Your task to perform on an android device: change the clock display to show seconds Image 0: 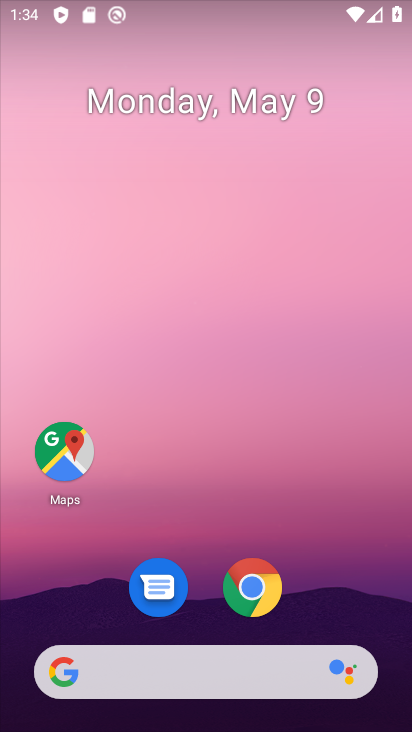
Step 0: drag from (201, 554) to (262, 19)
Your task to perform on an android device: change the clock display to show seconds Image 1: 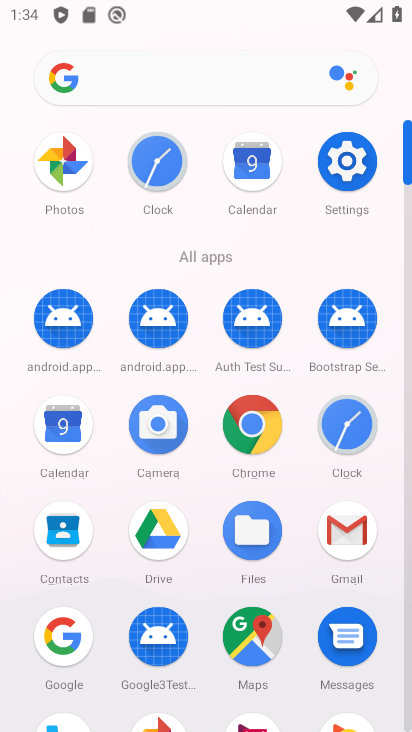
Step 1: click (347, 426)
Your task to perform on an android device: change the clock display to show seconds Image 2: 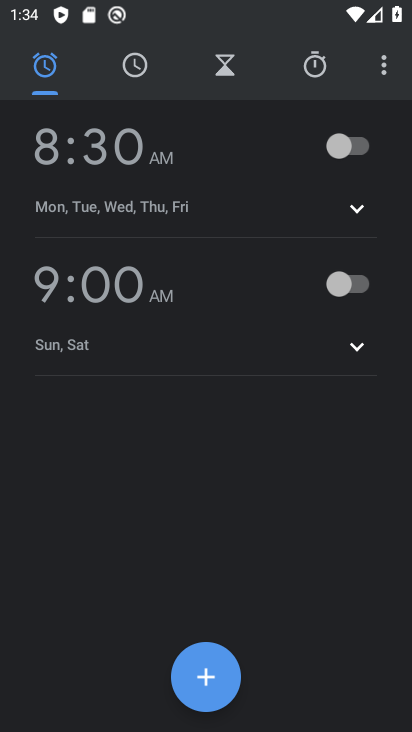
Step 2: drag from (344, 425) to (382, 75)
Your task to perform on an android device: change the clock display to show seconds Image 3: 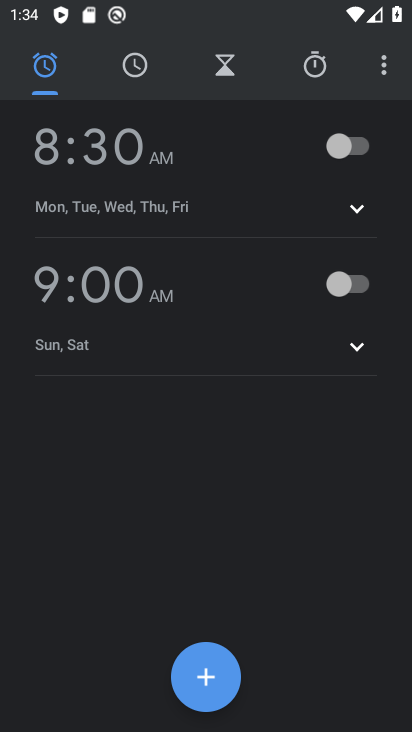
Step 3: click (382, 75)
Your task to perform on an android device: change the clock display to show seconds Image 4: 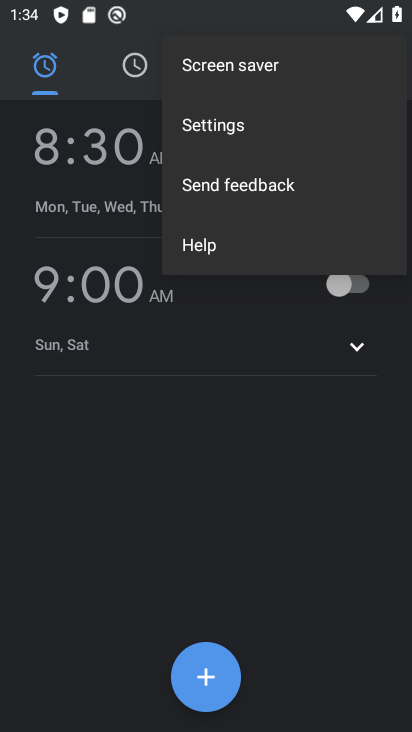
Step 4: click (193, 120)
Your task to perform on an android device: change the clock display to show seconds Image 5: 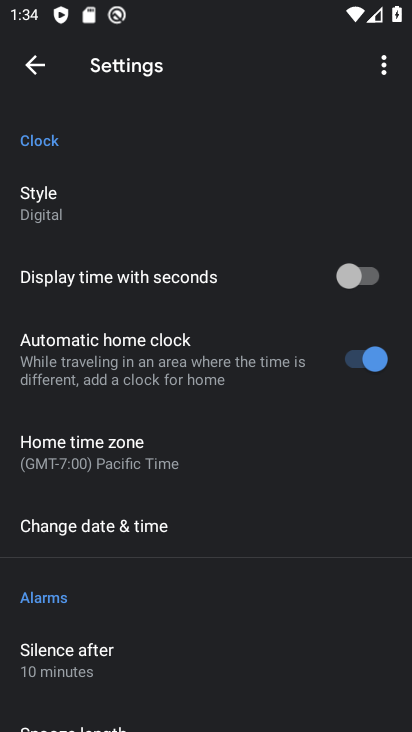
Step 5: click (361, 270)
Your task to perform on an android device: change the clock display to show seconds Image 6: 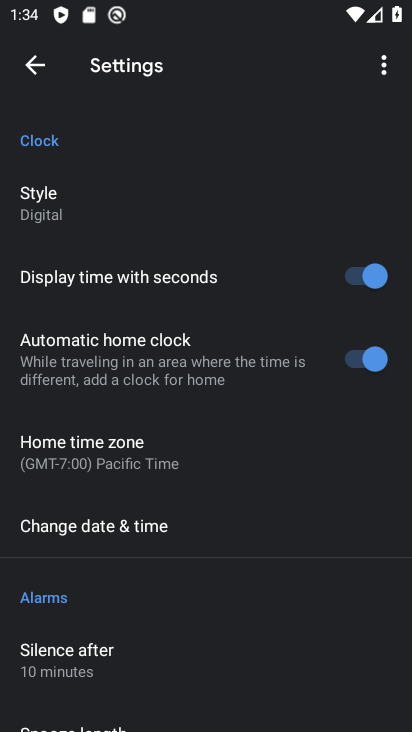
Step 6: task complete